Your task to perform on an android device: uninstall "Walmart Shopping & Grocery" Image 0: 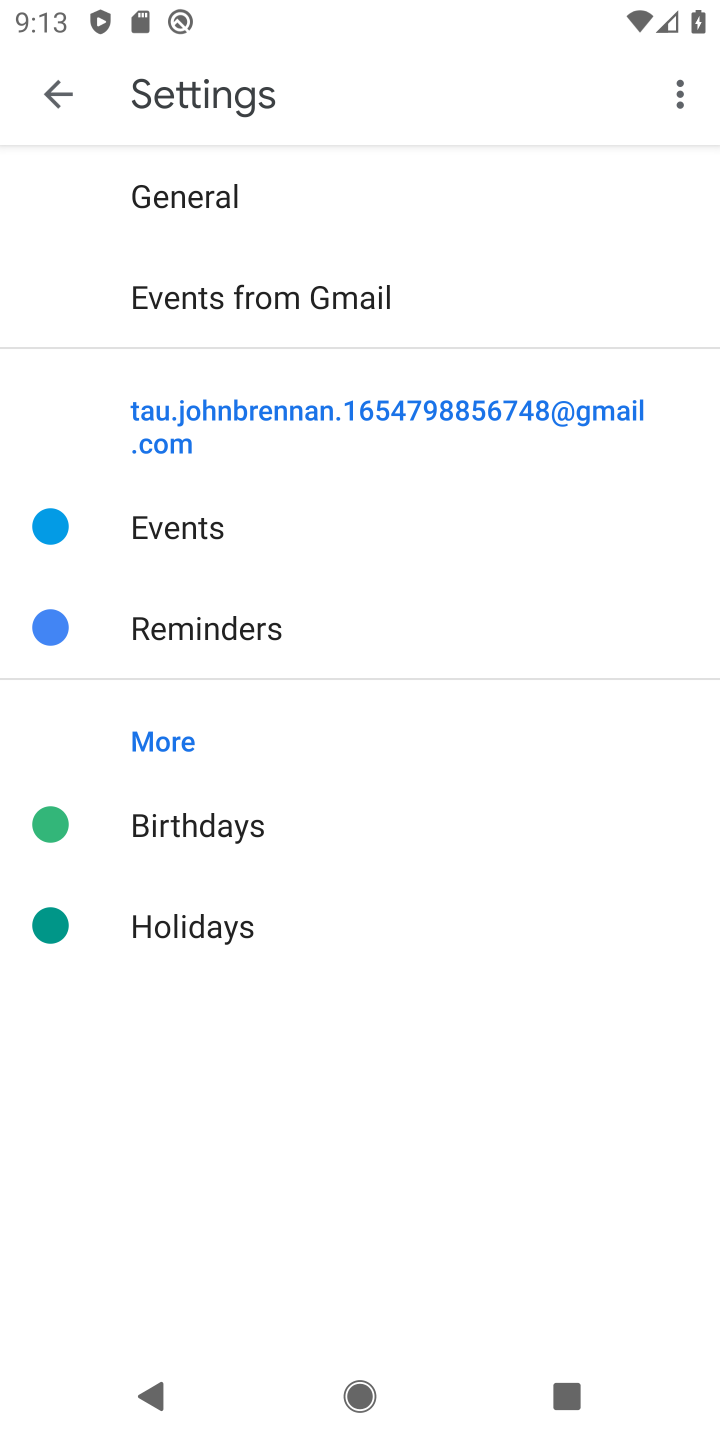
Step 0: press home button
Your task to perform on an android device: uninstall "Walmart Shopping & Grocery" Image 1: 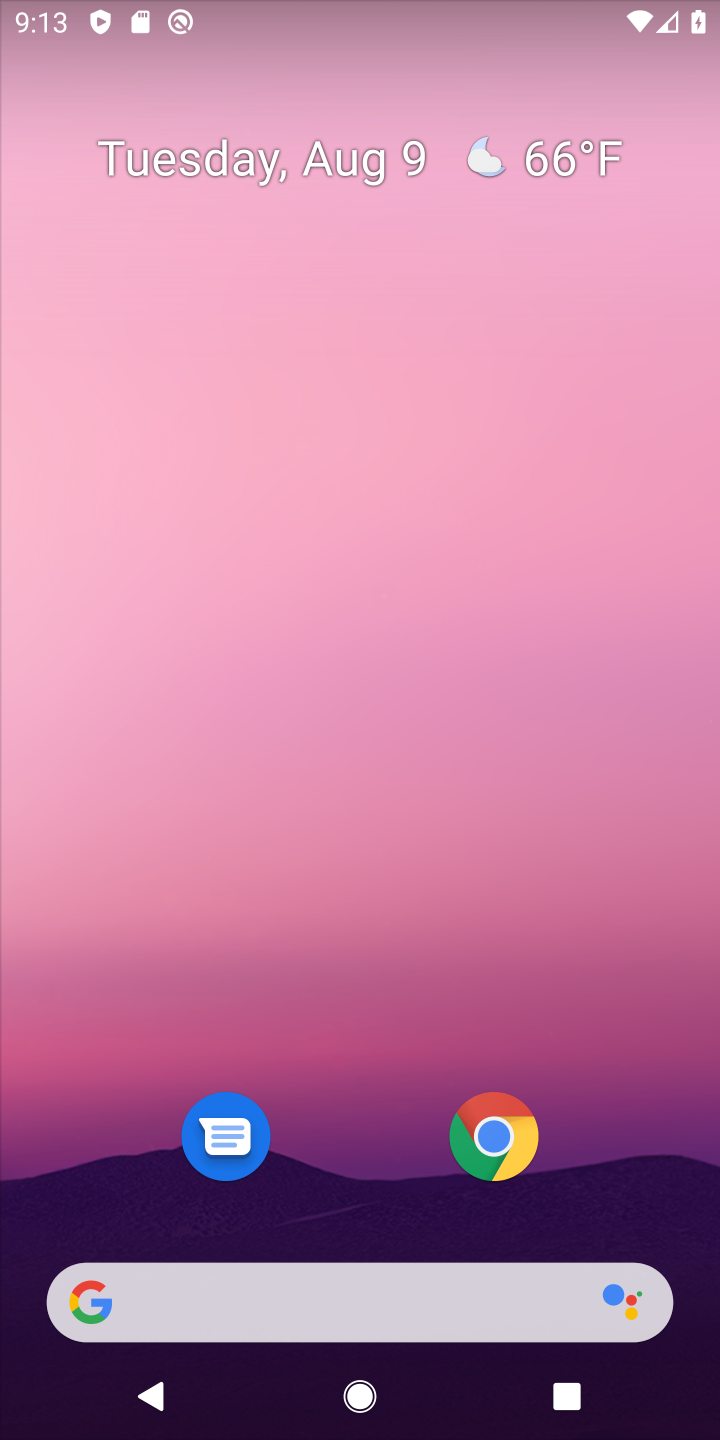
Step 1: drag from (370, 996) to (420, 0)
Your task to perform on an android device: uninstall "Walmart Shopping & Grocery" Image 2: 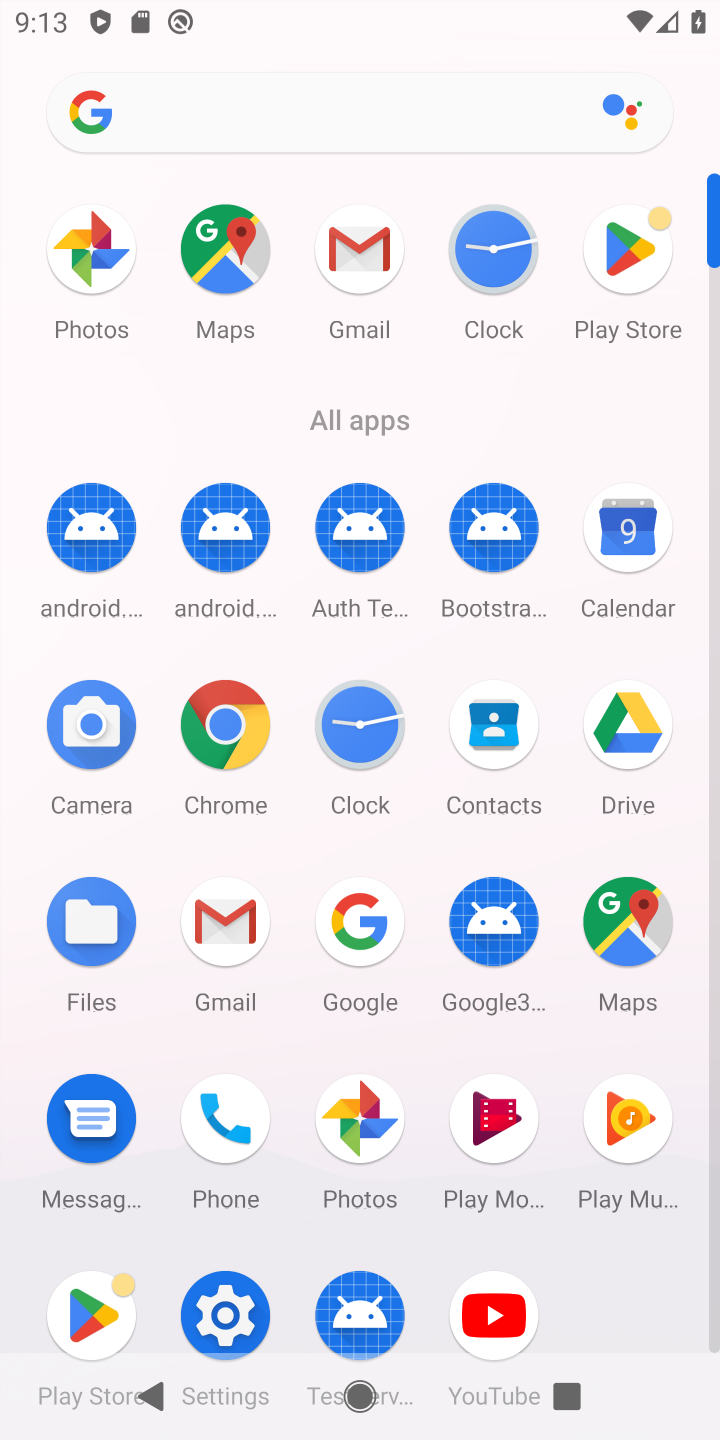
Step 2: click (618, 239)
Your task to perform on an android device: uninstall "Walmart Shopping & Grocery" Image 3: 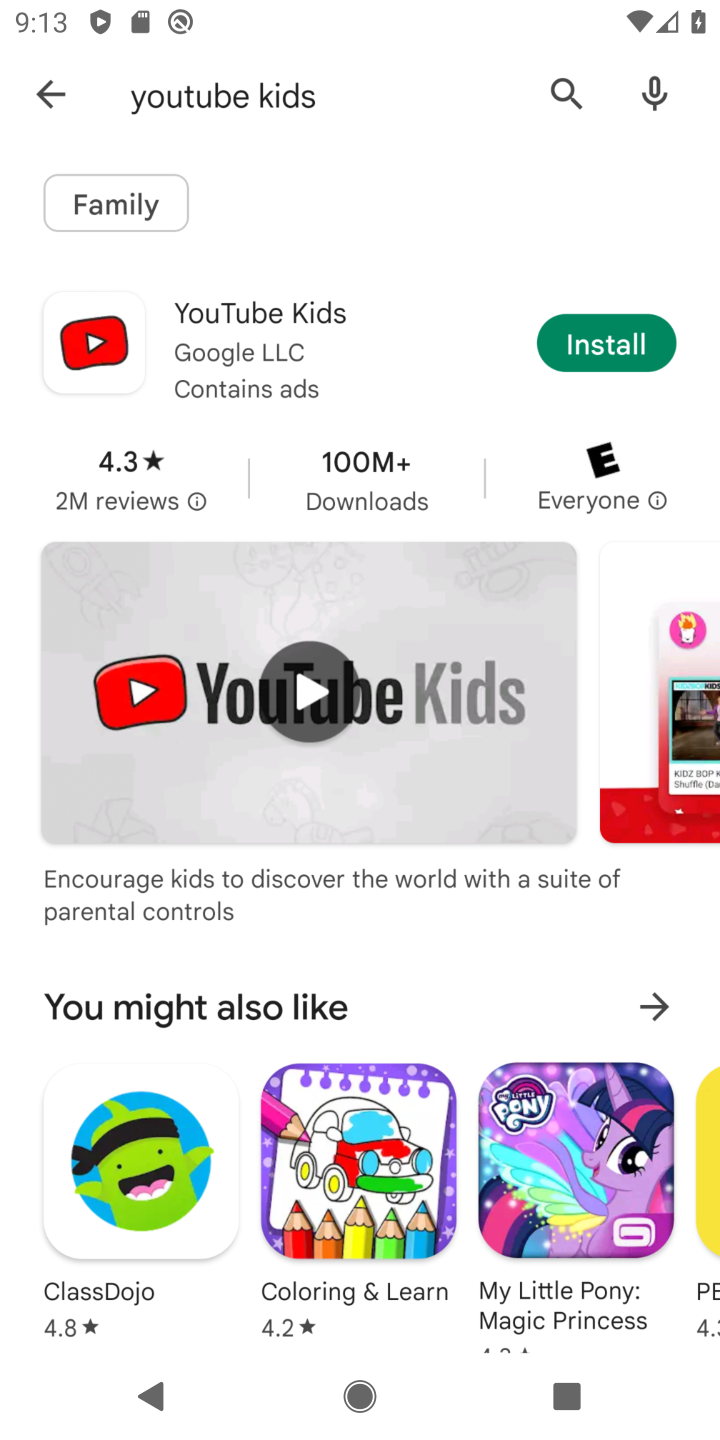
Step 3: click (579, 102)
Your task to perform on an android device: uninstall "Walmart Shopping & Grocery" Image 4: 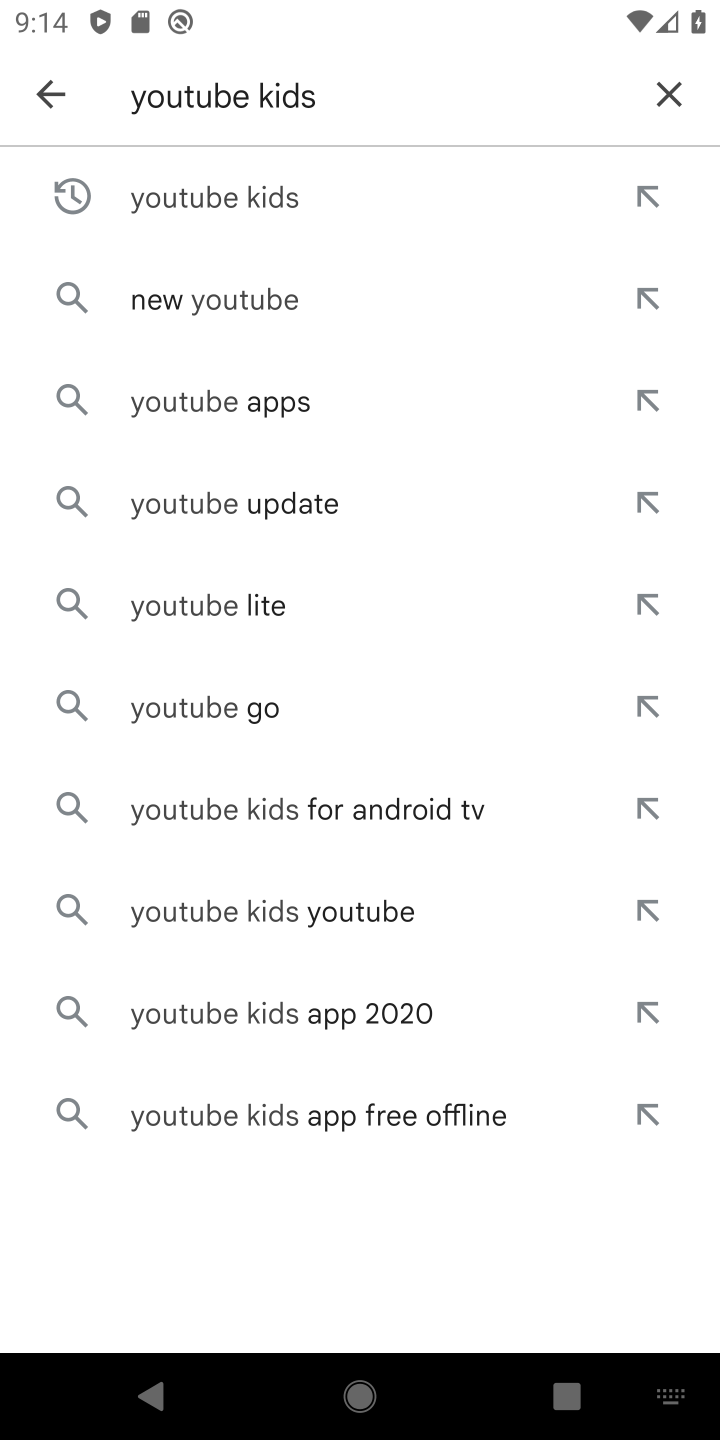
Step 4: click (674, 107)
Your task to perform on an android device: uninstall "Walmart Shopping & Grocery" Image 5: 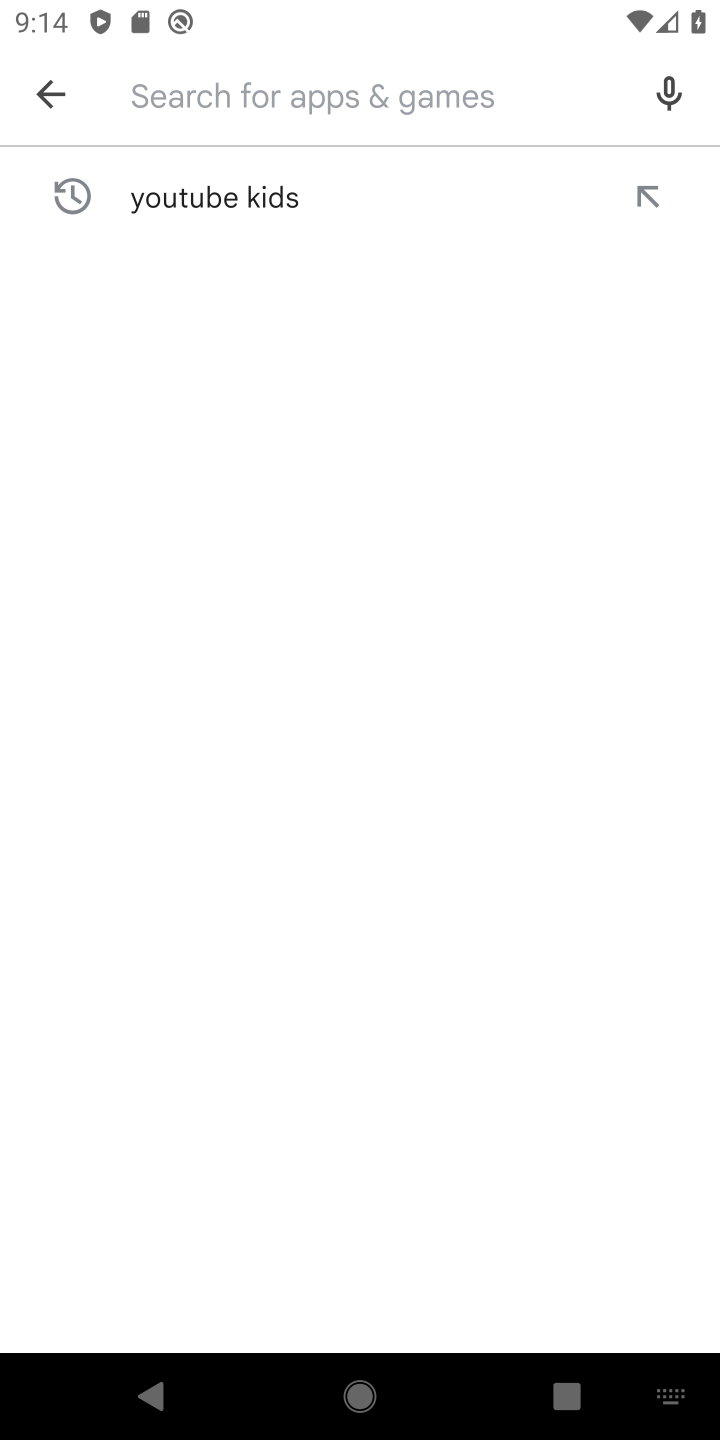
Step 5: type "Walmart Shopping & Grocery"
Your task to perform on an android device: uninstall "Walmart Shopping & Grocery" Image 6: 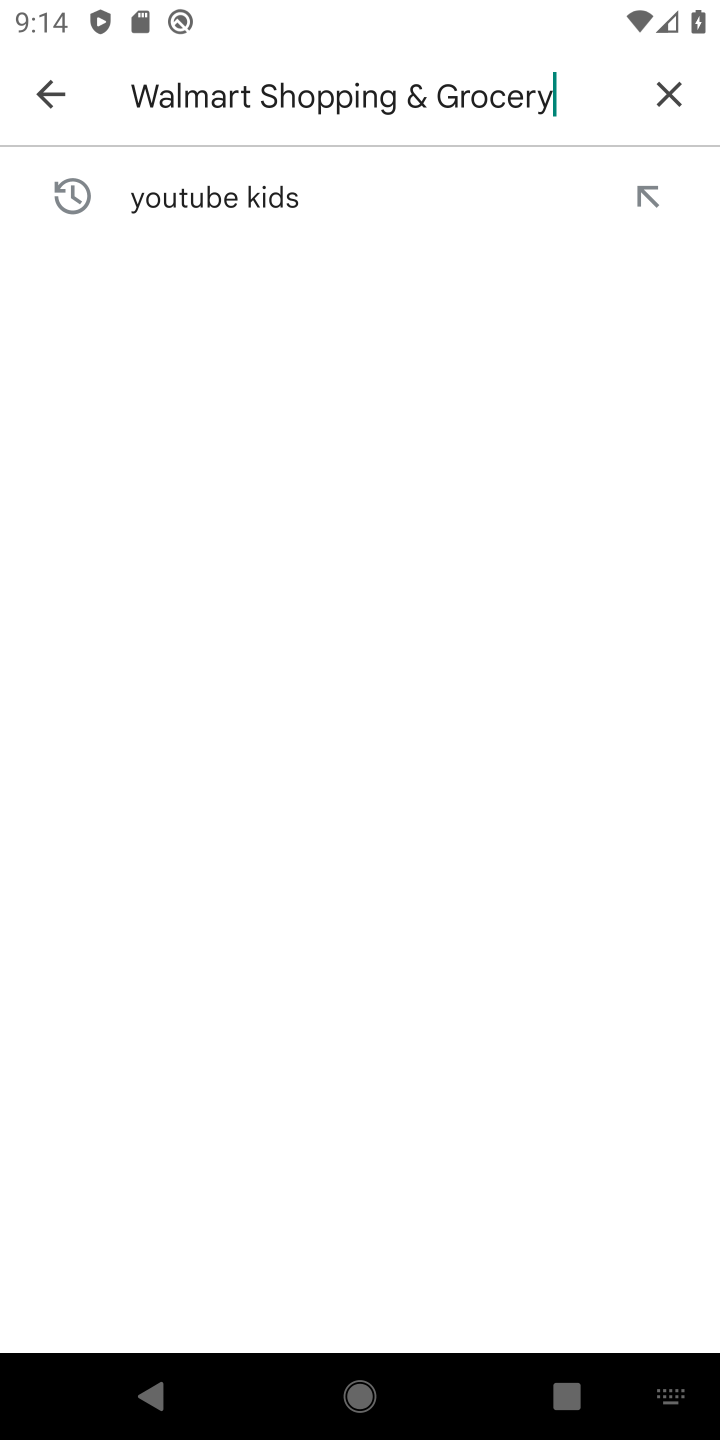
Step 6: type ""
Your task to perform on an android device: uninstall "Walmart Shopping & Grocery" Image 7: 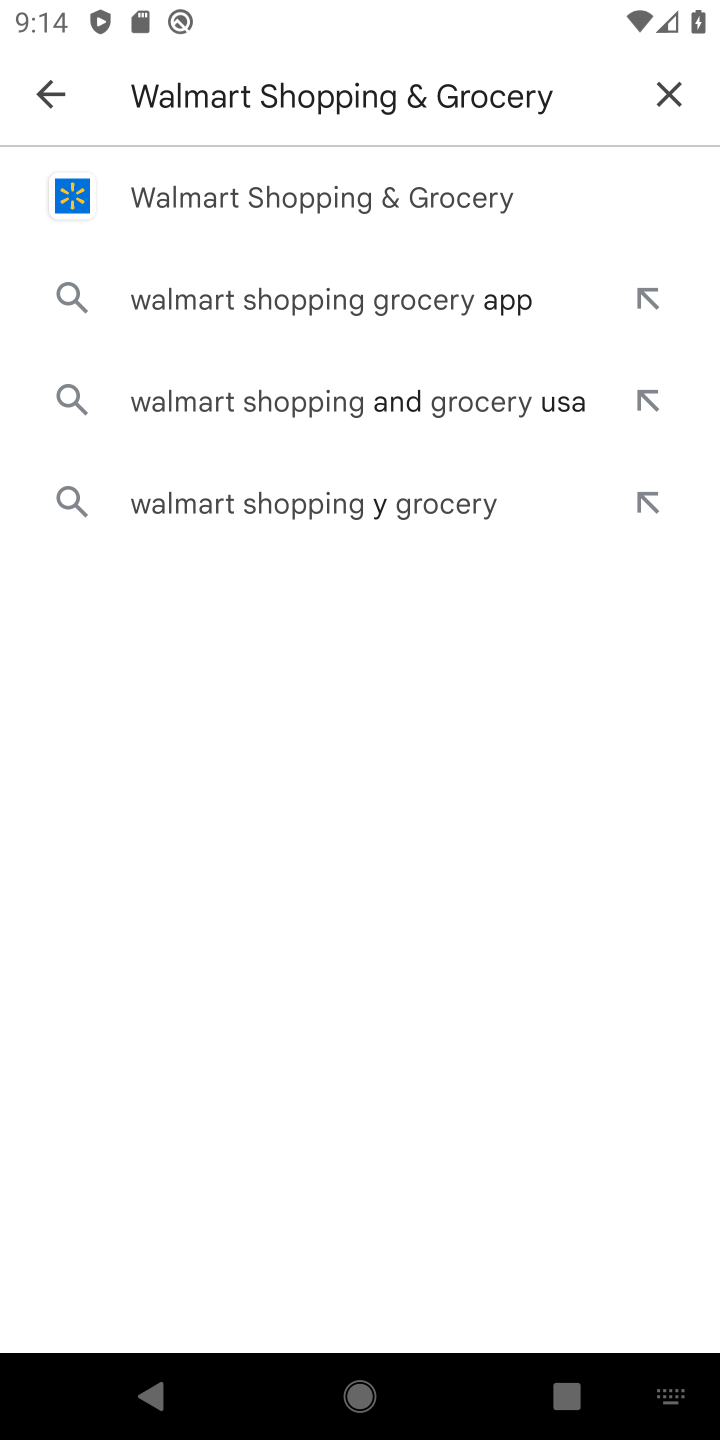
Step 7: click (339, 190)
Your task to perform on an android device: uninstall "Walmart Shopping & Grocery" Image 8: 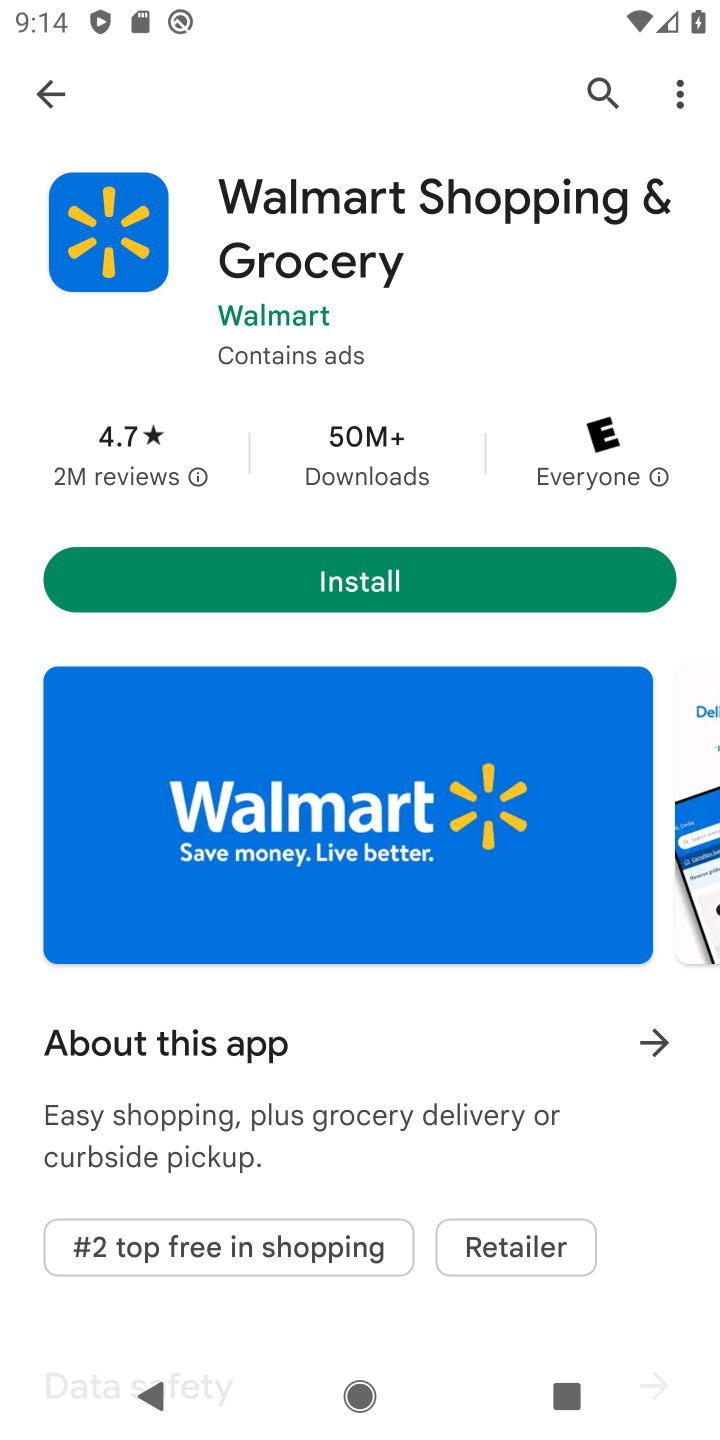
Step 8: task complete